Your task to perform on an android device: add a contact in the contacts app Image 0: 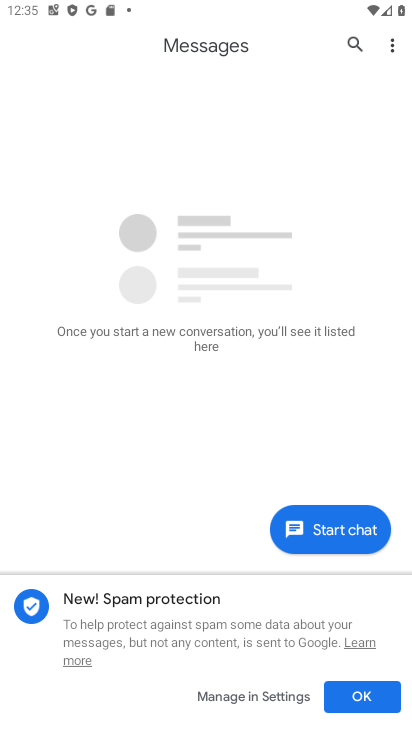
Step 0: press home button
Your task to perform on an android device: add a contact in the contacts app Image 1: 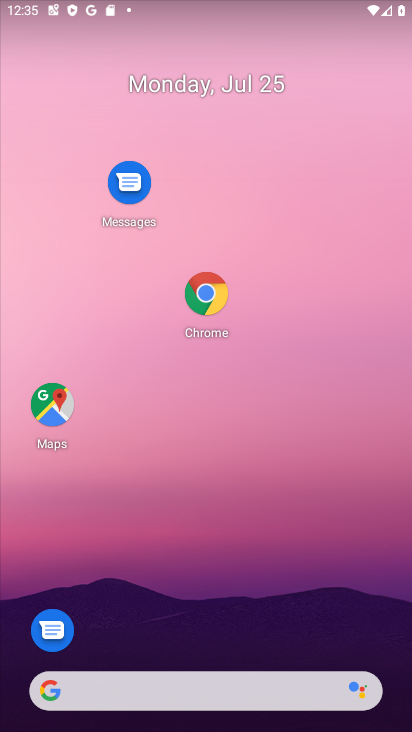
Step 1: drag from (218, 586) to (242, 8)
Your task to perform on an android device: add a contact in the contacts app Image 2: 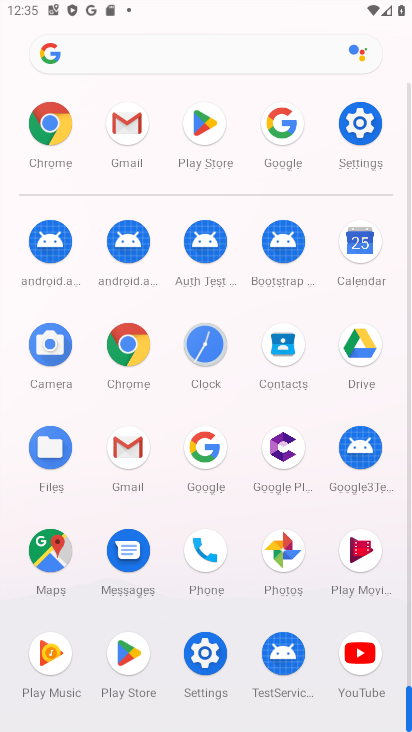
Step 2: click (282, 347)
Your task to perform on an android device: add a contact in the contacts app Image 3: 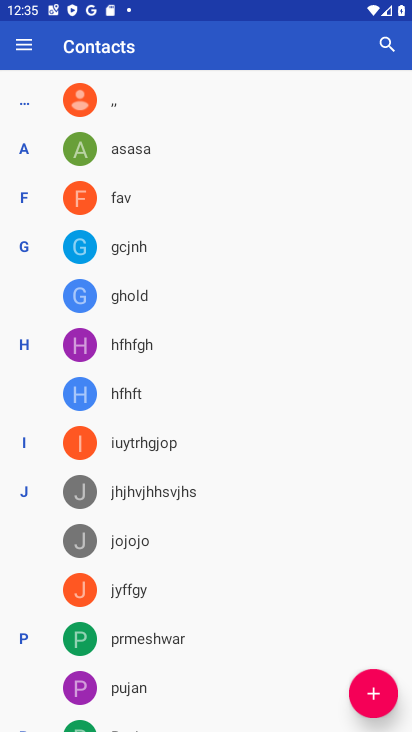
Step 3: click (373, 692)
Your task to perform on an android device: add a contact in the contacts app Image 4: 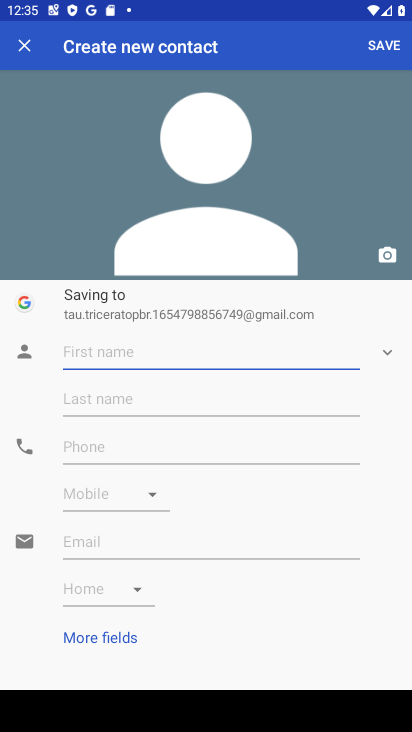
Step 4: type "fffli"
Your task to perform on an android device: add a contact in the contacts app Image 5: 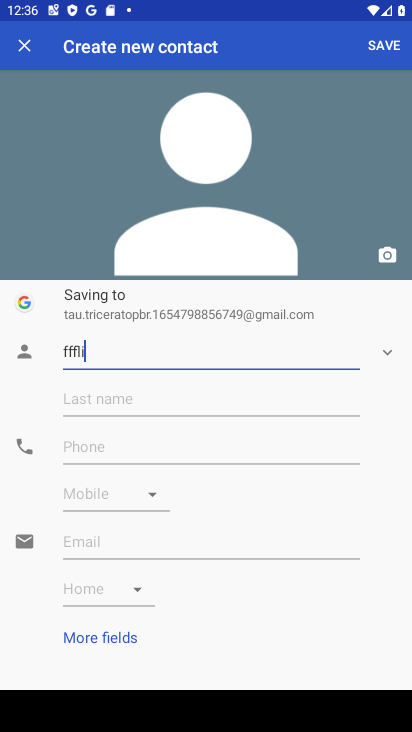
Step 5: click (117, 453)
Your task to perform on an android device: add a contact in the contacts app Image 6: 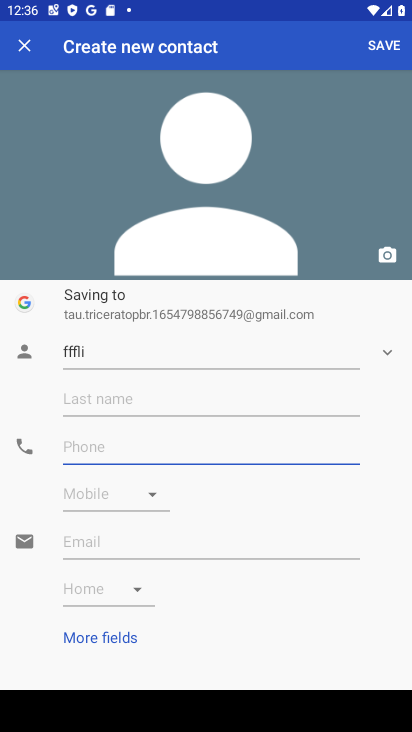
Step 6: type "0009999"
Your task to perform on an android device: add a contact in the contacts app Image 7: 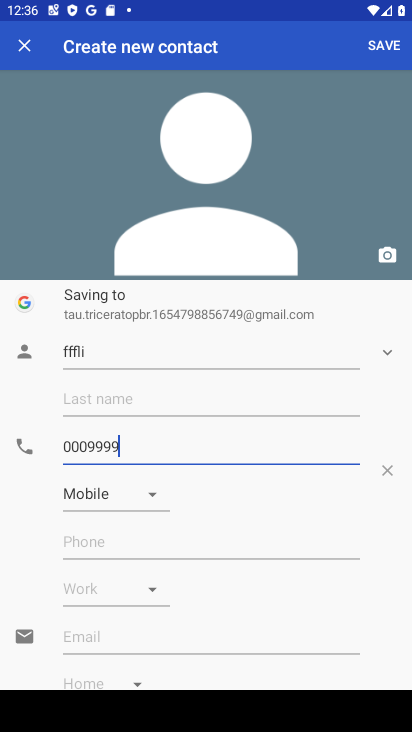
Step 7: click (389, 40)
Your task to perform on an android device: add a contact in the contacts app Image 8: 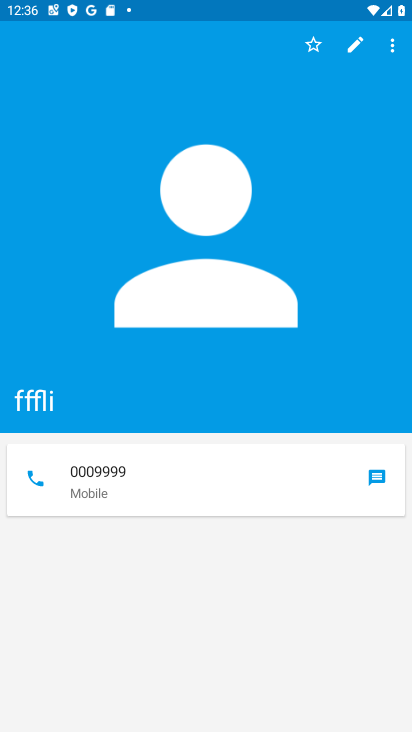
Step 8: task complete